Your task to perform on an android device: Open calendar and show me the first week of next month Image 0: 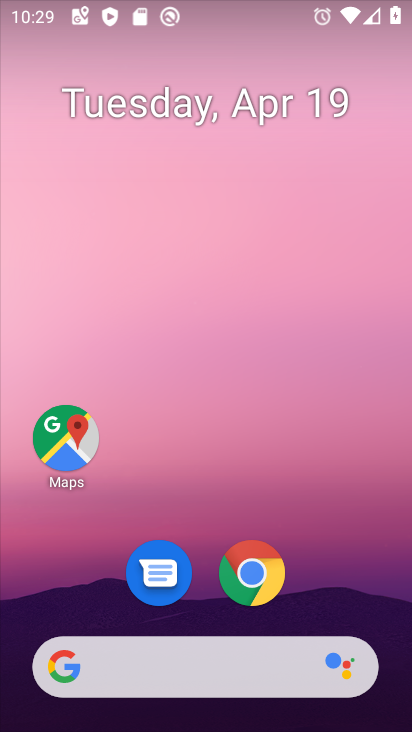
Step 0: drag from (313, 484) to (155, 53)
Your task to perform on an android device: Open calendar and show me the first week of next month Image 1: 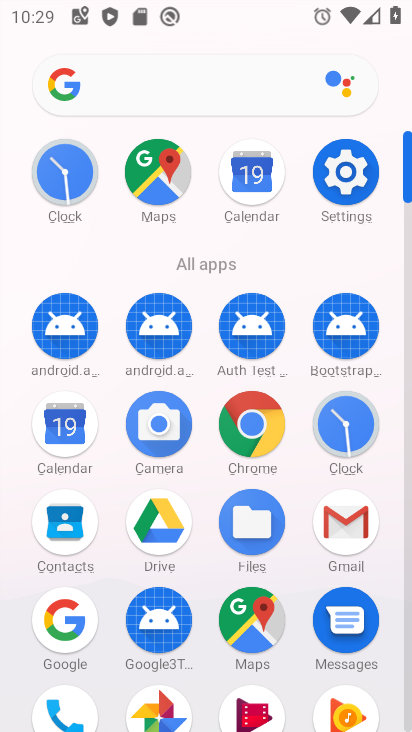
Step 1: click (68, 420)
Your task to perform on an android device: Open calendar and show me the first week of next month Image 2: 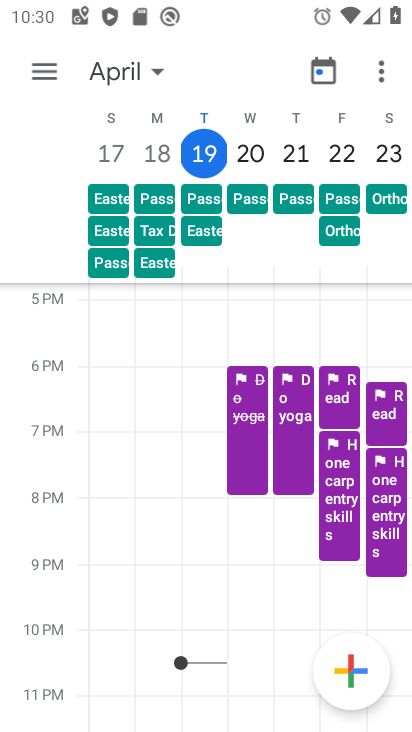
Step 2: task complete